Your task to perform on an android device: change the clock style Image 0: 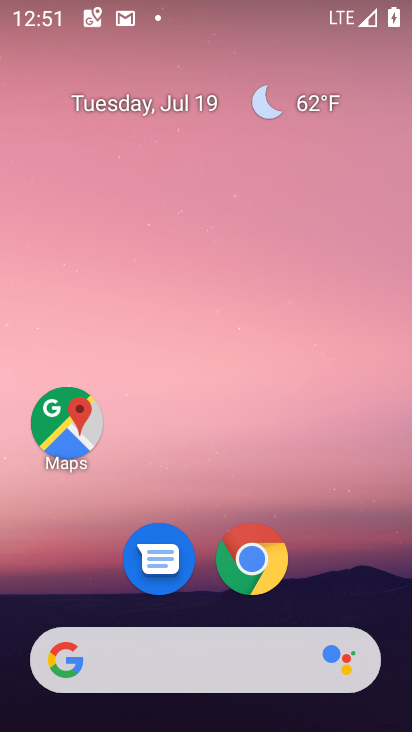
Step 0: drag from (224, 634) to (297, 137)
Your task to perform on an android device: change the clock style Image 1: 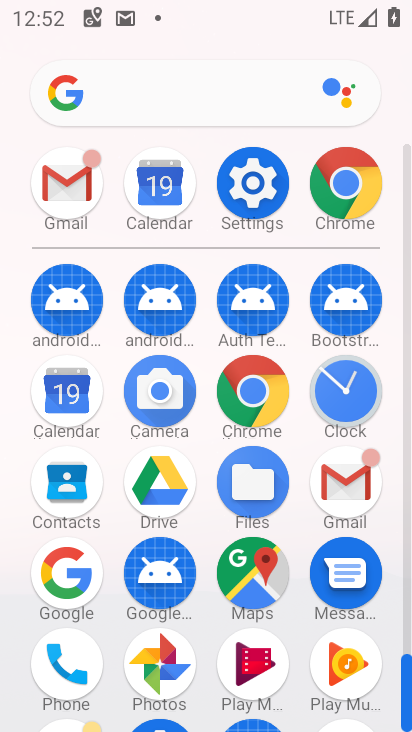
Step 1: click (347, 412)
Your task to perform on an android device: change the clock style Image 2: 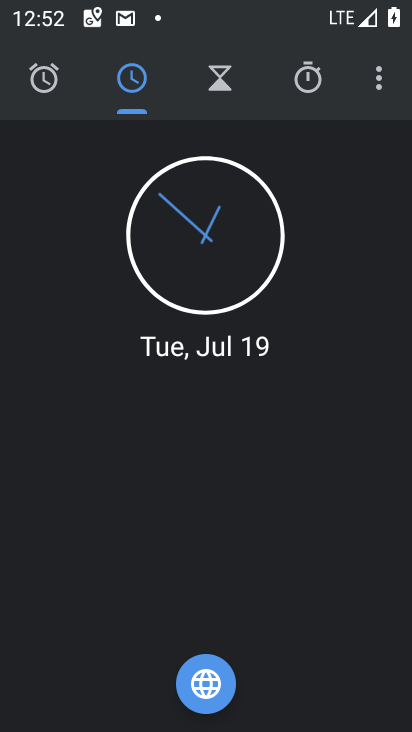
Step 2: click (308, 95)
Your task to perform on an android device: change the clock style Image 3: 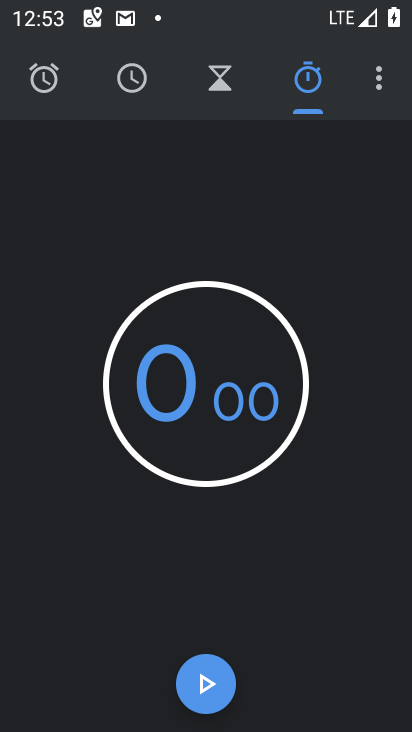
Step 3: click (384, 88)
Your task to perform on an android device: change the clock style Image 4: 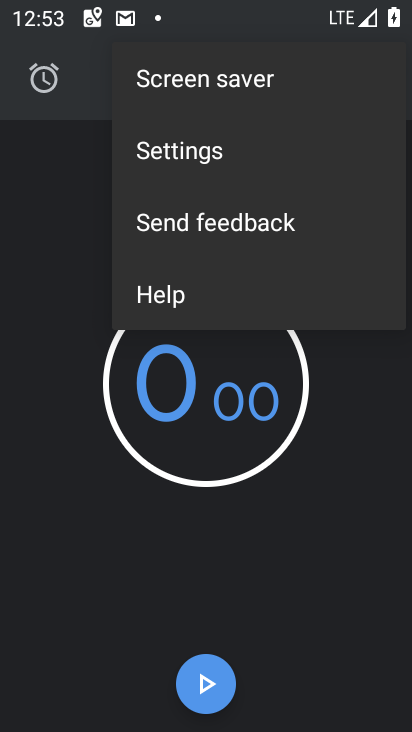
Step 4: click (211, 162)
Your task to perform on an android device: change the clock style Image 5: 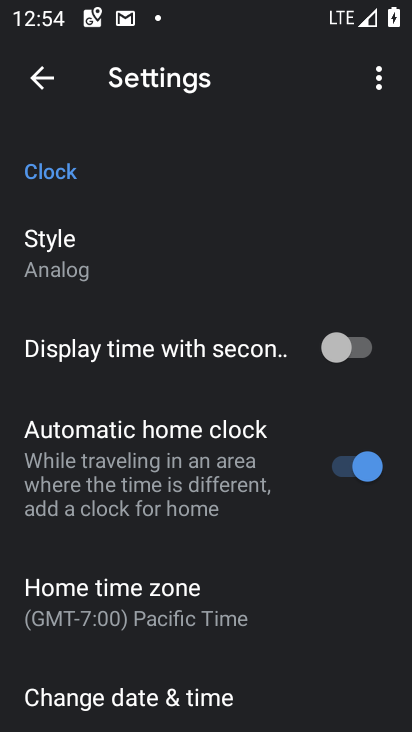
Step 5: click (106, 256)
Your task to perform on an android device: change the clock style Image 6: 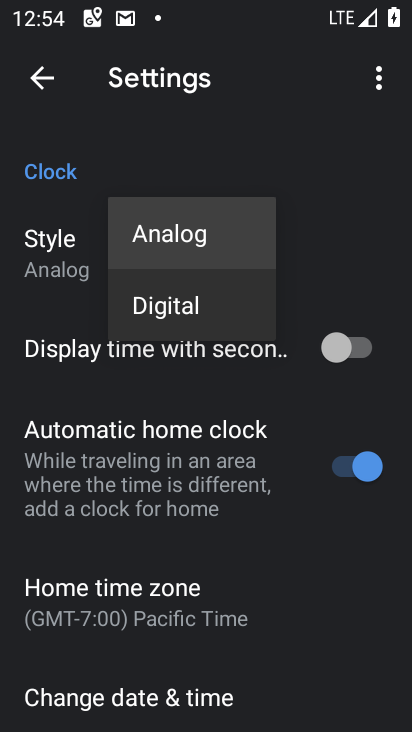
Step 6: click (202, 321)
Your task to perform on an android device: change the clock style Image 7: 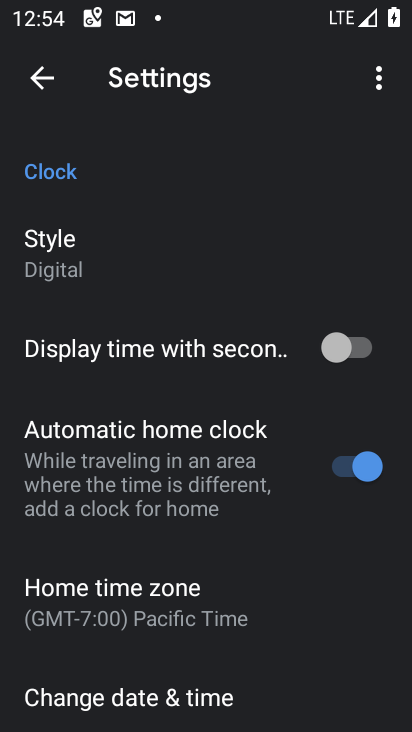
Step 7: task complete